Your task to perform on an android device: open chrome and create a bookmark for the current page Image 0: 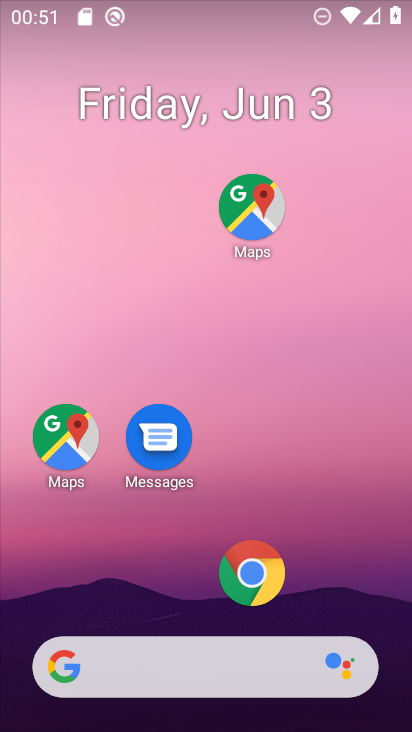
Step 0: click (230, 565)
Your task to perform on an android device: open chrome and create a bookmark for the current page Image 1: 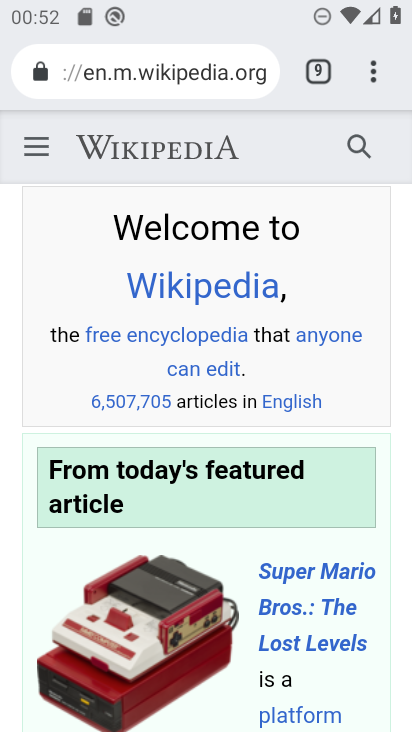
Step 1: click (365, 82)
Your task to perform on an android device: open chrome and create a bookmark for the current page Image 2: 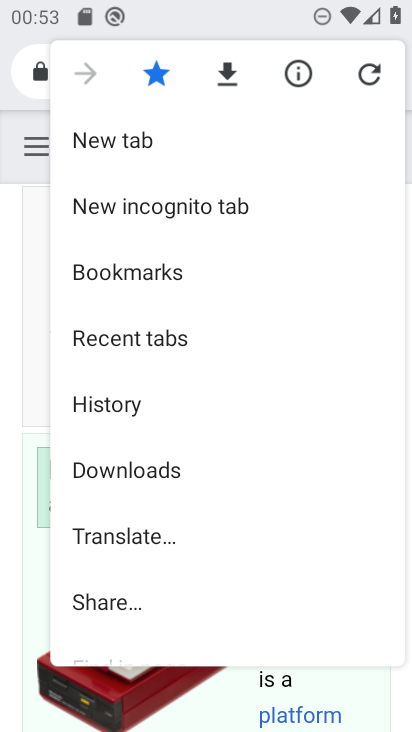
Step 2: task complete